Your task to perform on an android device: See recent photos Image 0: 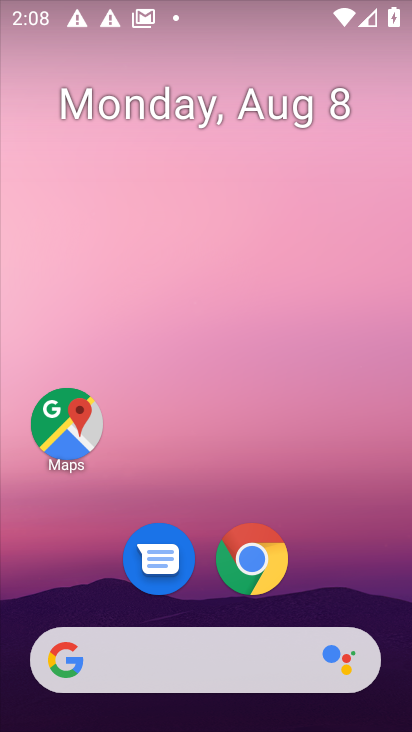
Step 0: drag from (179, 654) to (318, 222)
Your task to perform on an android device: See recent photos Image 1: 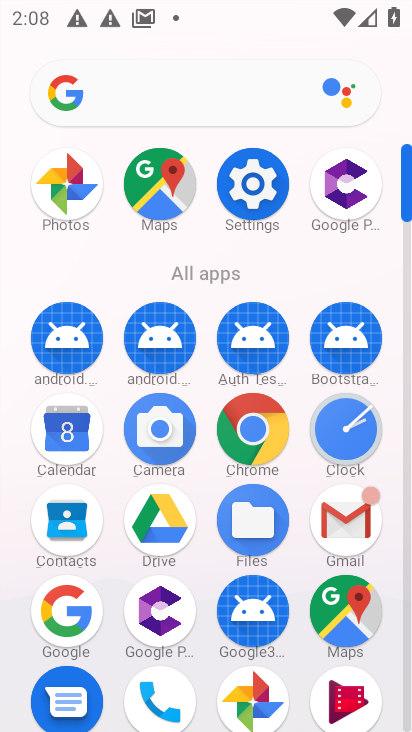
Step 1: click (68, 184)
Your task to perform on an android device: See recent photos Image 2: 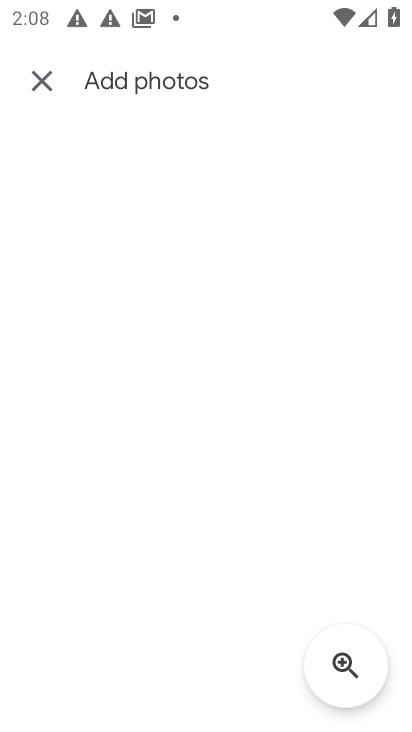
Step 2: click (40, 82)
Your task to perform on an android device: See recent photos Image 3: 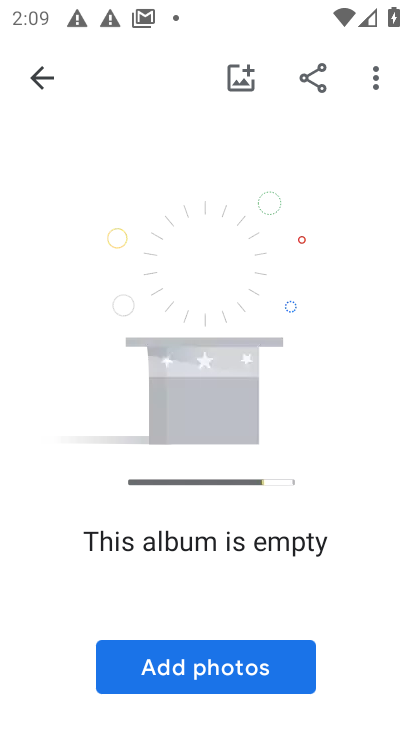
Step 3: press back button
Your task to perform on an android device: See recent photos Image 4: 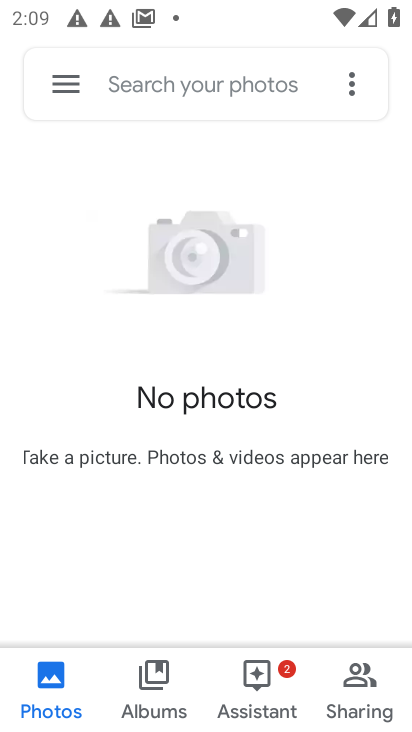
Step 4: click (151, 662)
Your task to perform on an android device: See recent photos Image 5: 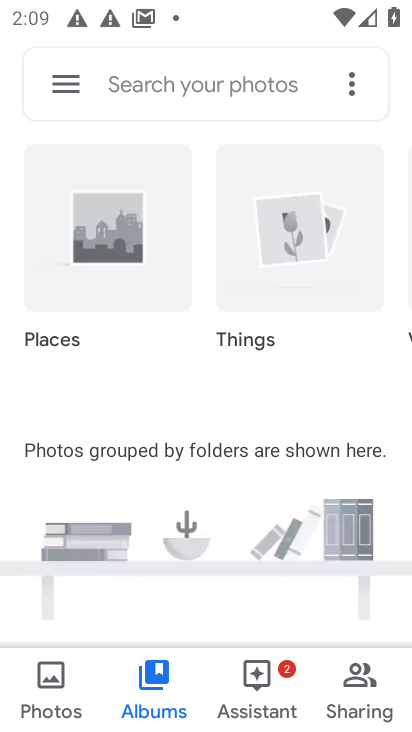
Step 5: task complete